Your task to perform on an android device: Open calendar and show me the first week of next month Image 0: 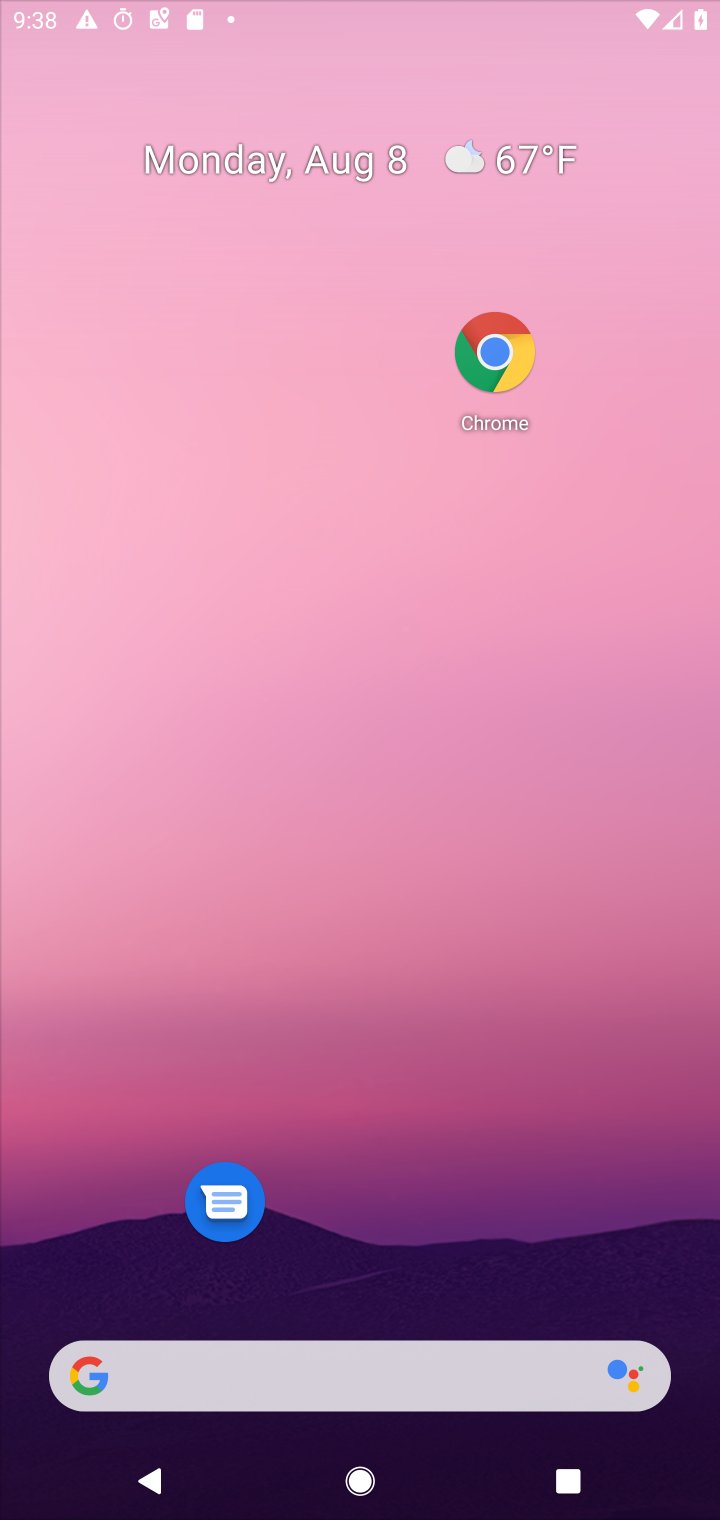
Step 0: press home button
Your task to perform on an android device: Open calendar and show me the first week of next month Image 1: 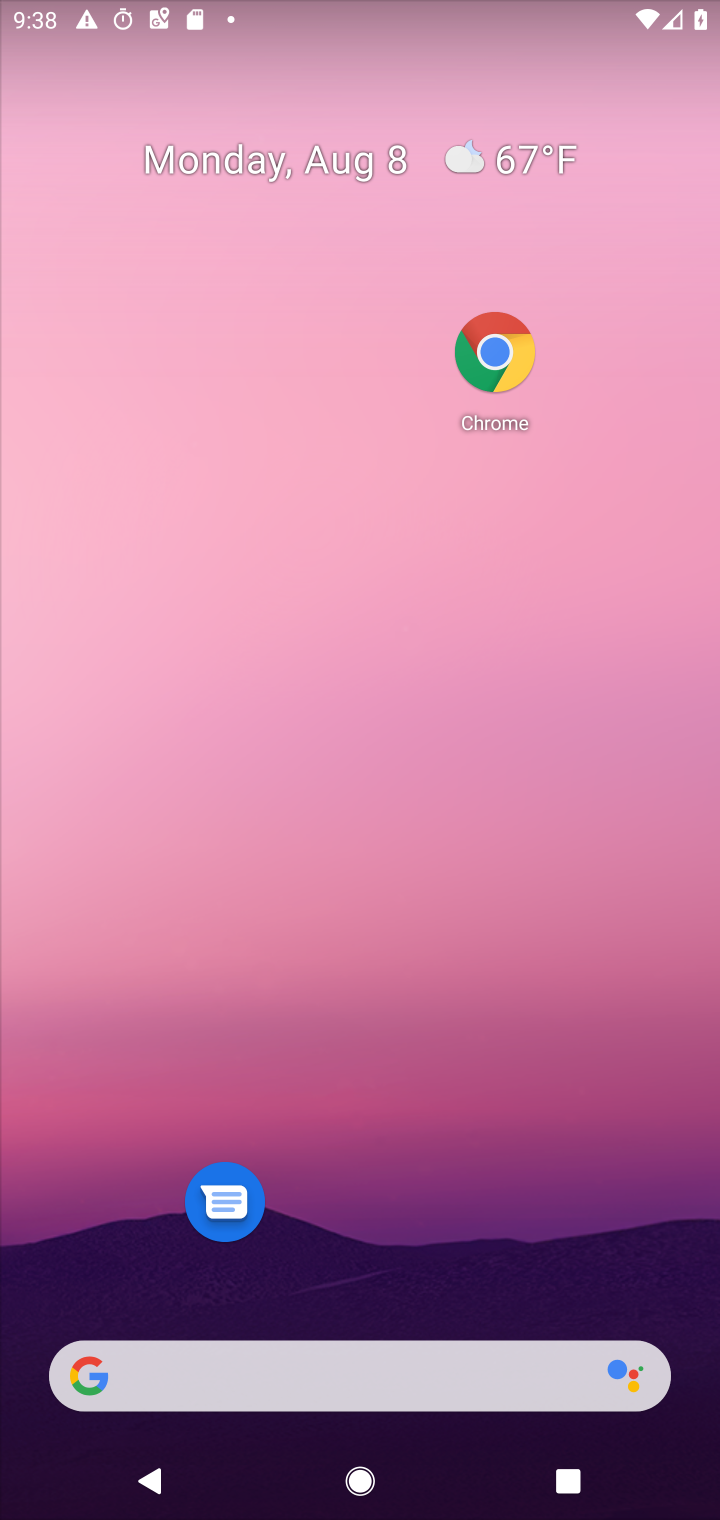
Step 1: drag from (417, 1233) to (580, 192)
Your task to perform on an android device: Open calendar and show me the first week of next month Image 2: 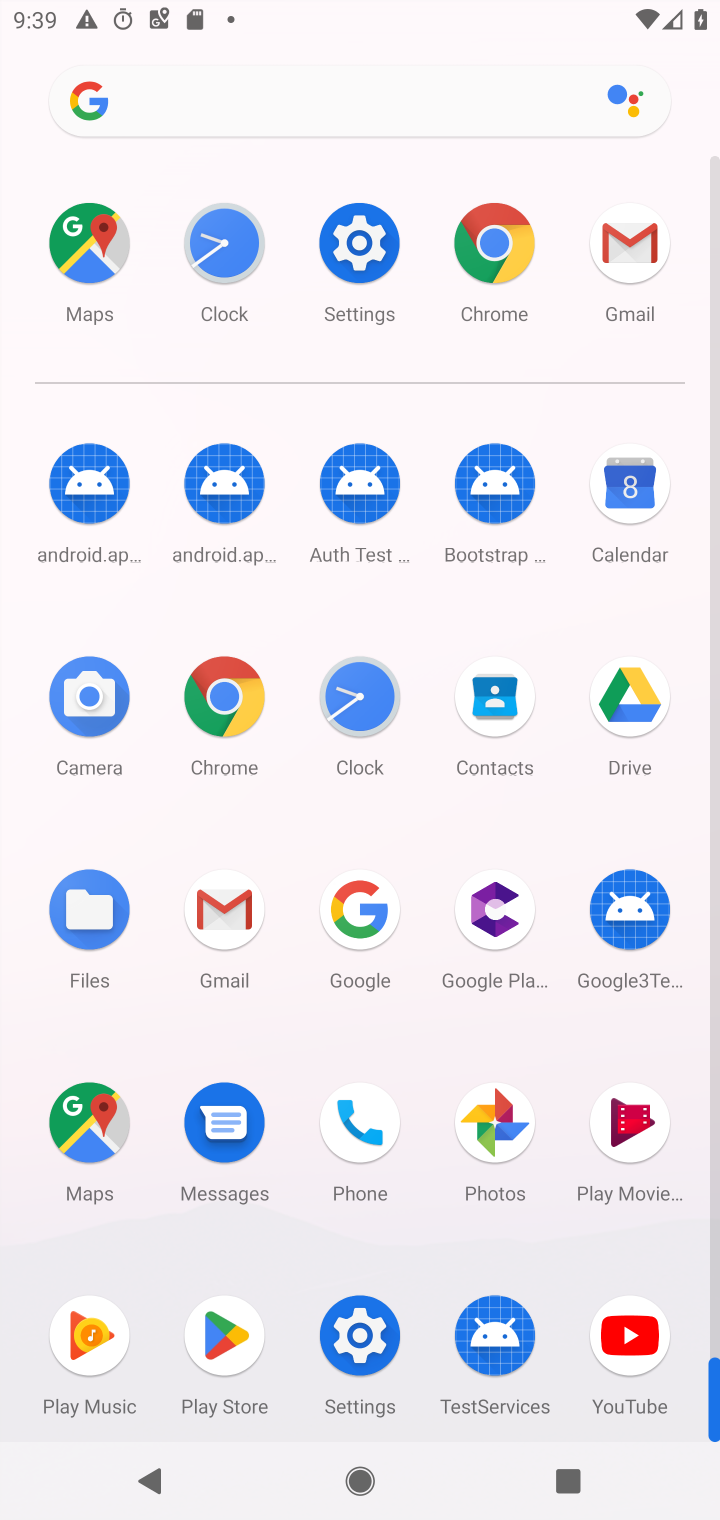
Step 2: click (643, 522)
Your task to perform on an android device: Open calendar and show me the first week of next month Image 3: 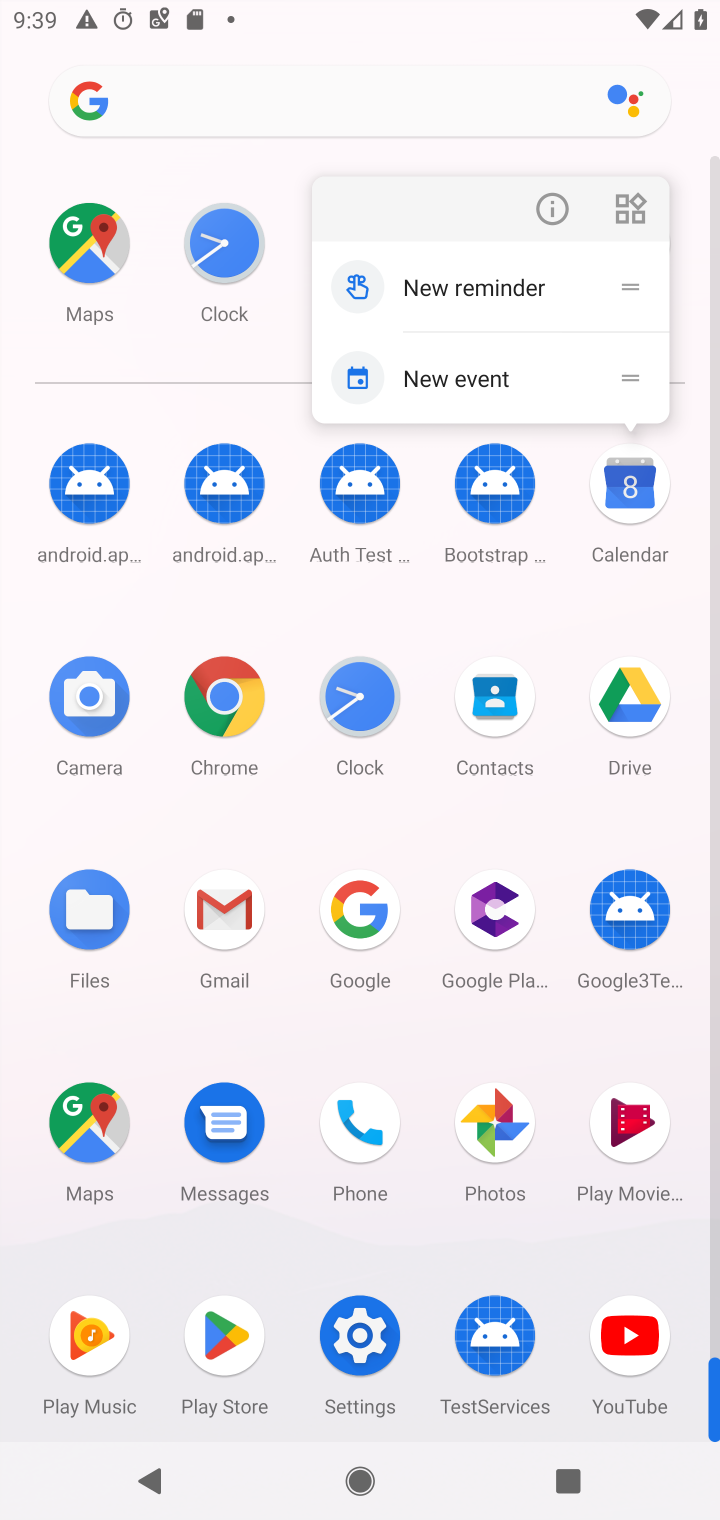
Step 3: click (635, 531)
Your task to perform on an android device: Open calendar and show me the first week of next month Image 4: 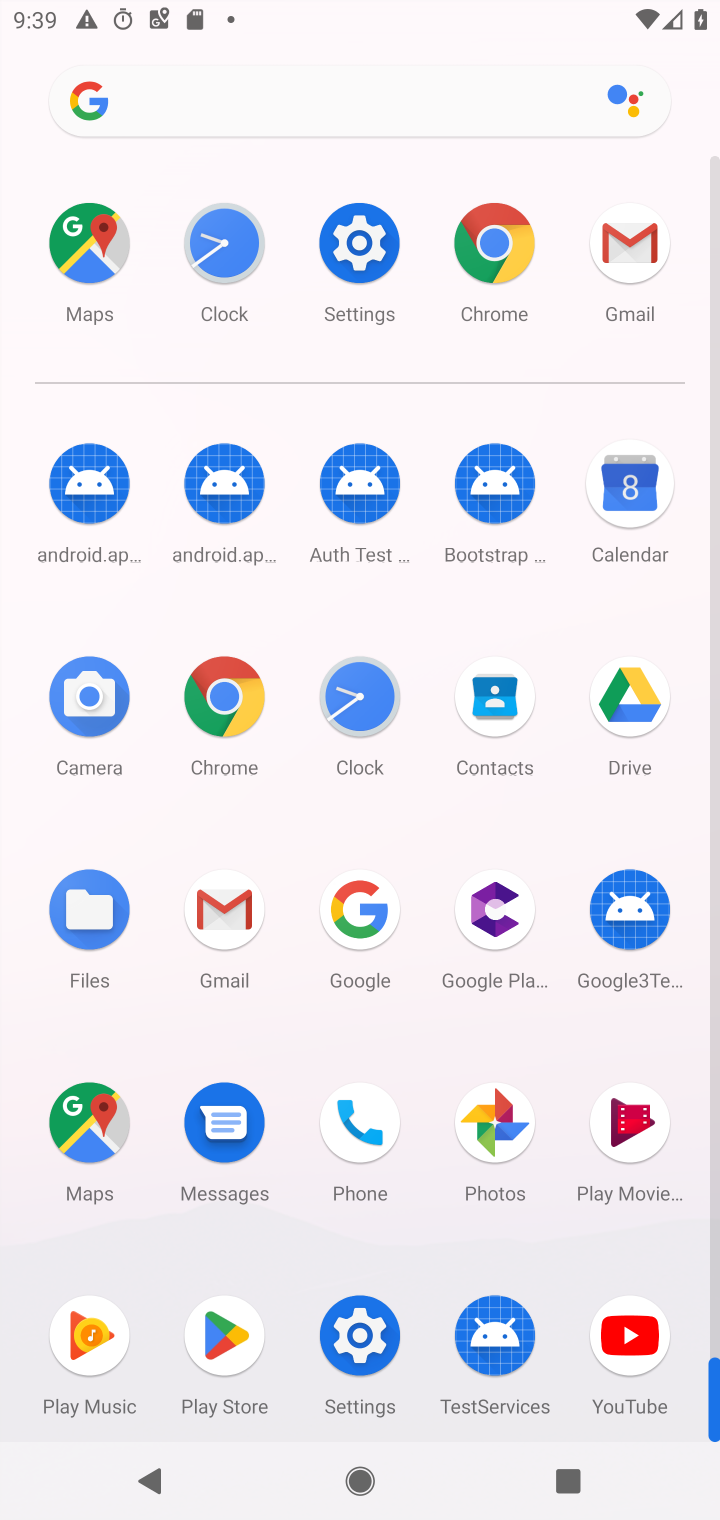
Step 4: click (635, 531)
Your task to perform on an android device: Open calendar and show me the first week of next month Image 5: 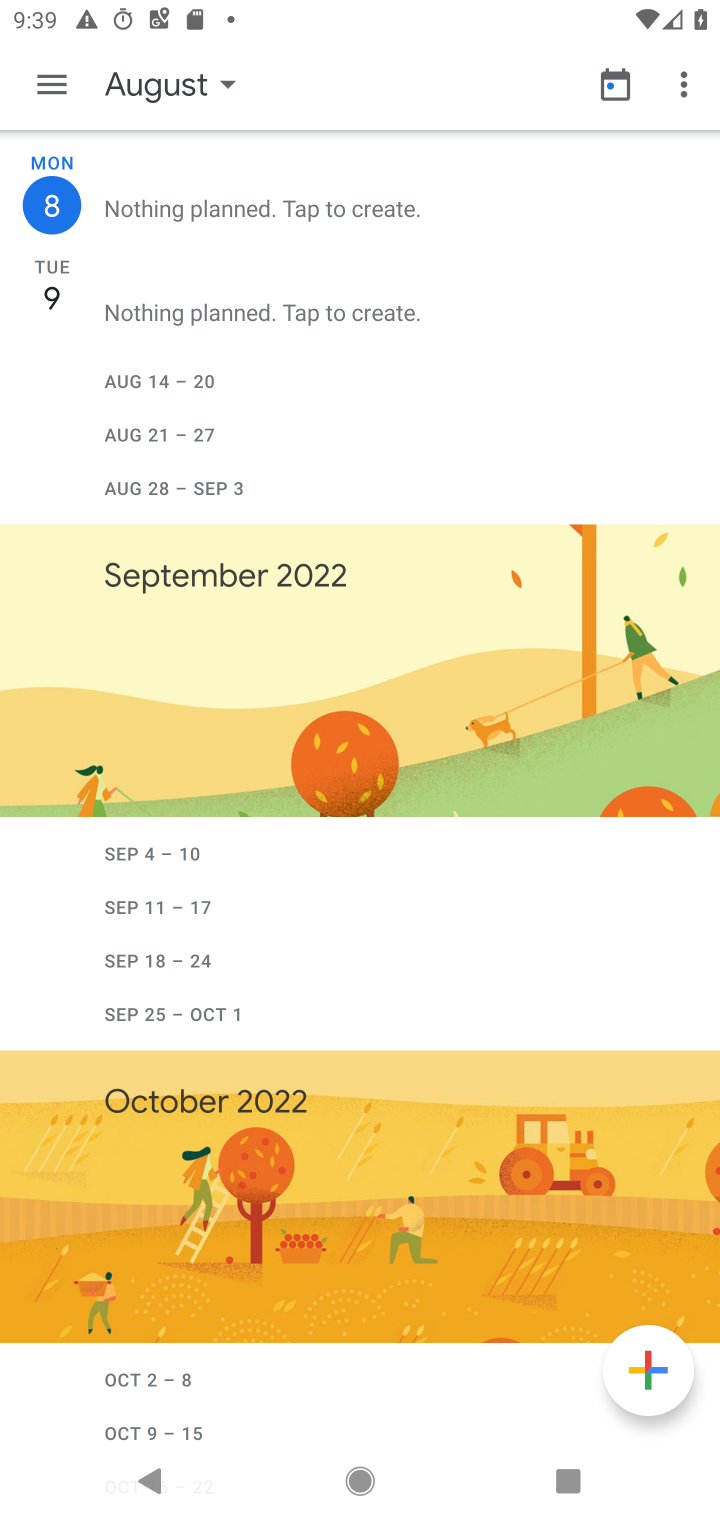
Step 5: click (229, 89)
Your task to perform on an android device: Open calendar and show me the first week of next month Image 6: 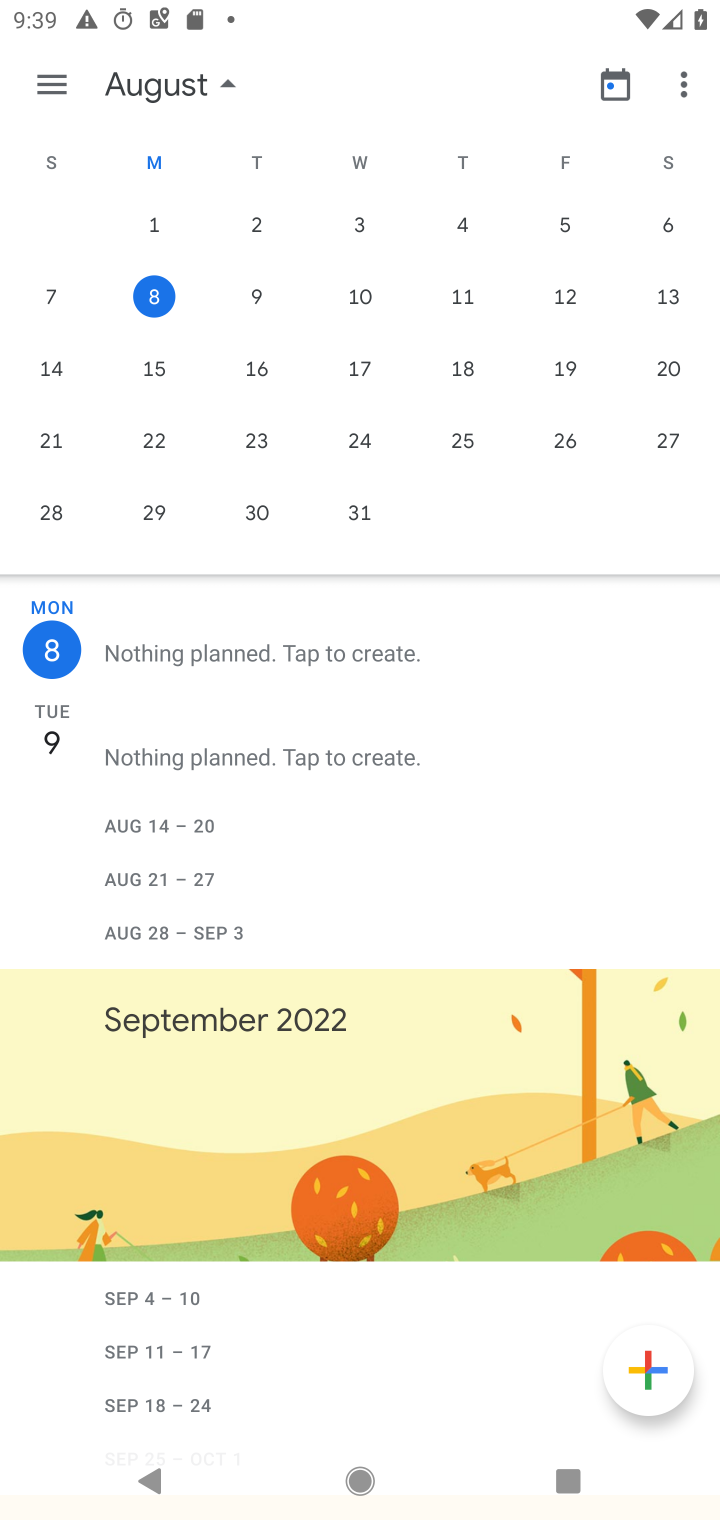
Step 6: task complete